Your task to perform on an android device: toggle notifications settings in the gmail app Image 0: 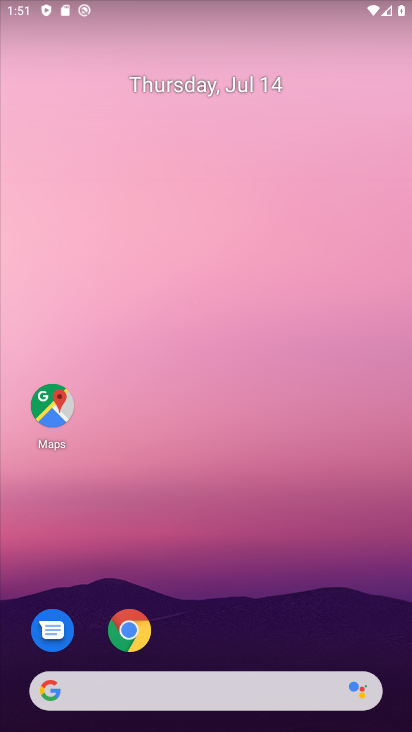
Step 0: drag from (210, 608) to (256, 200)
Your task to perform on an android device: toggle notifications settings in the gmail app Image 1: 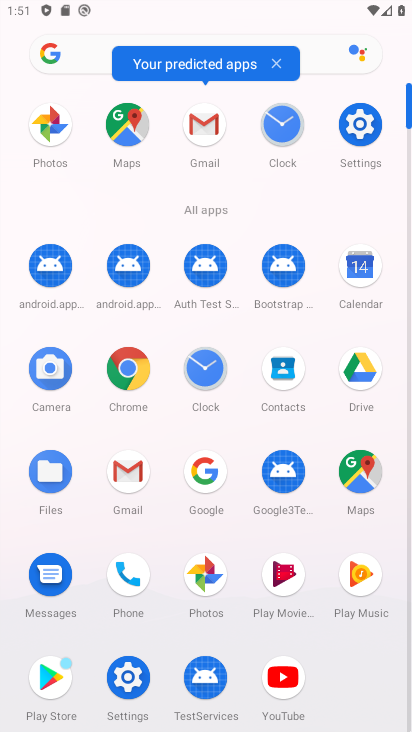
Step 1: click (131, 461)
Your task to perform on an android device: toggle notifications settings in the gmail app Image 2: 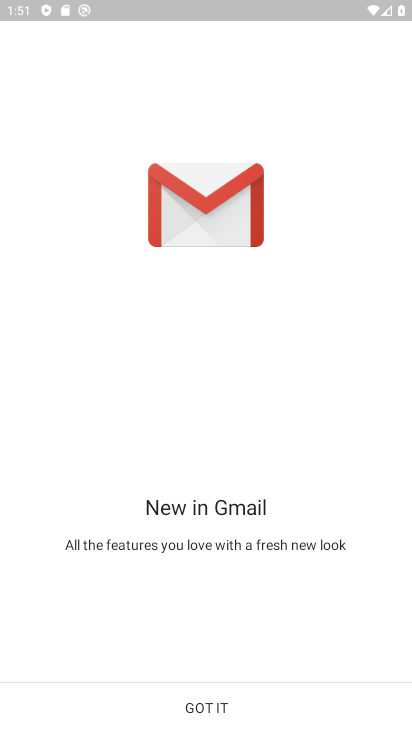
Step 2: click (204, 693)
Your task to perform on an android device: toggle notifications settings in the gmail app Image 3: 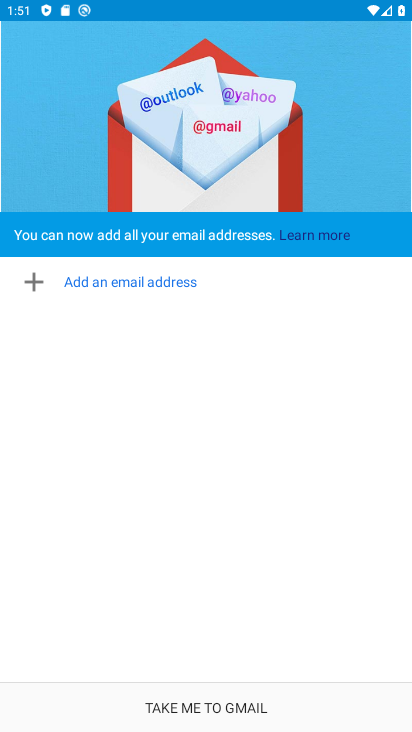
Step 3: click (230, 709)
Your task to perform on an android device: toggle notifications settings in the gmail app Image 4: 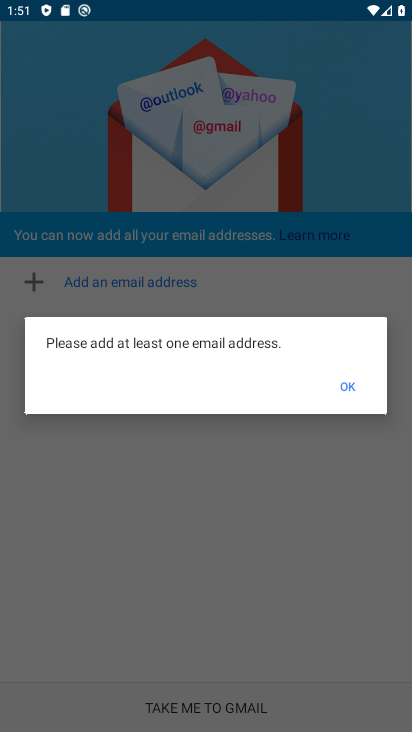
Step 4: task complete